Your task to perform on an android device: Check the news Image 0: 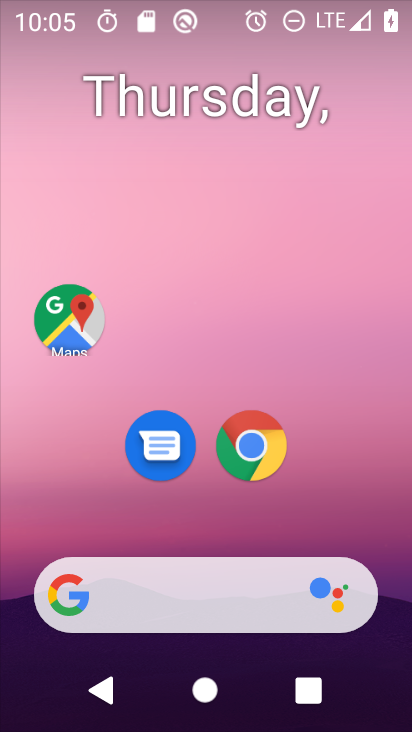
Step 0: drag from (355, 595) to (340, 105)
Your task to perform on an android device: Check the news Image 1: 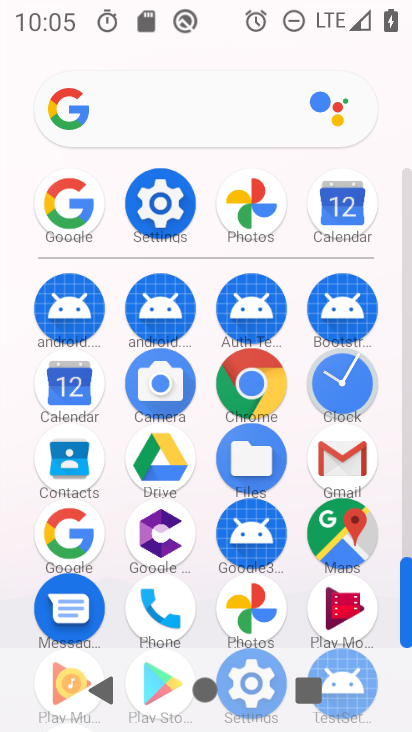
Step 1: click (254, 380)
Your task to perform on an android device: Check the news Image 2: 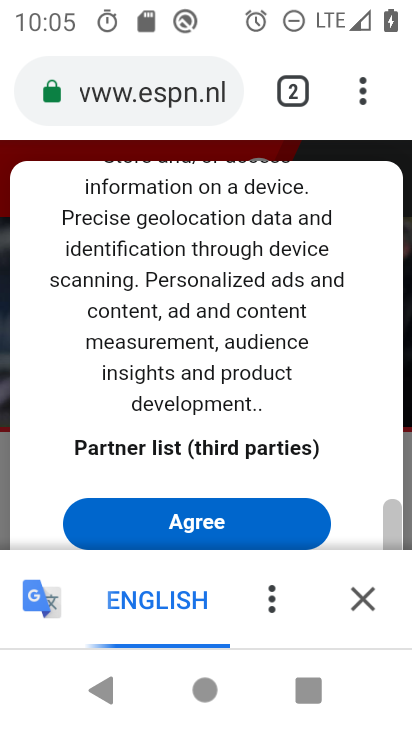
Step 2: press home button
Your task to perform on an android device: Check the news Image 3: 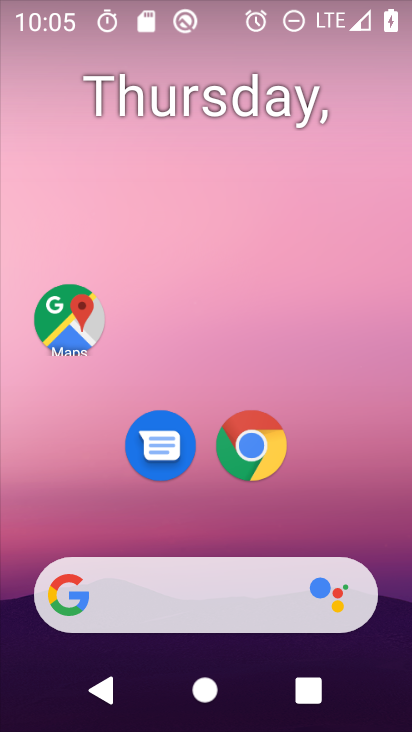
Step 3: drag from (182, 496) to (245, 48)
Your task to perform on an android device: Check the news Image 4: 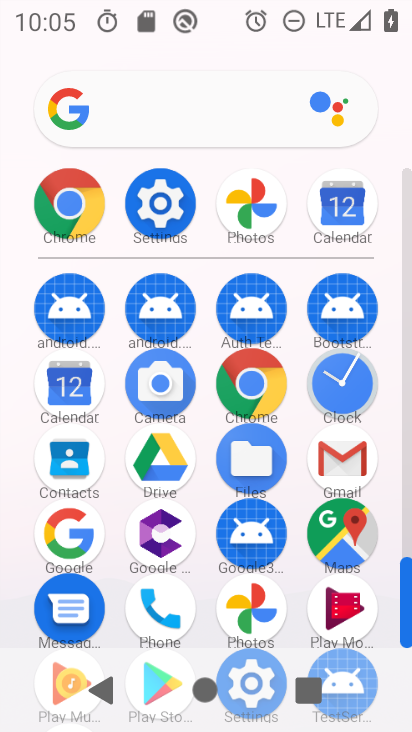
Step 4: click (205, 107)
Your task to perform on an android device: Check the news Image 5: 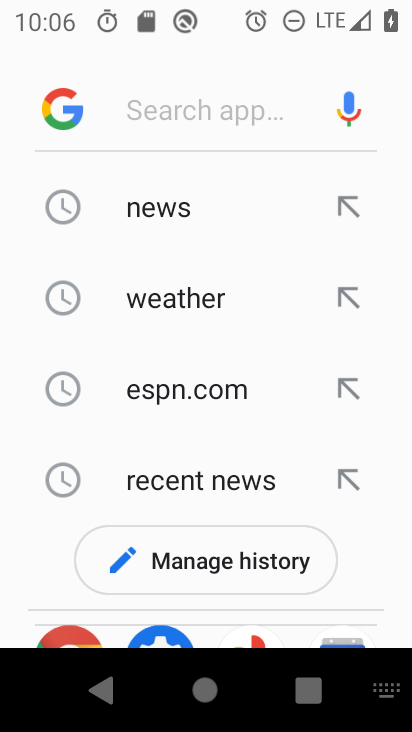
Step 5: click (158, 205)
Your task to perform on an android device: Check the news Image 6: 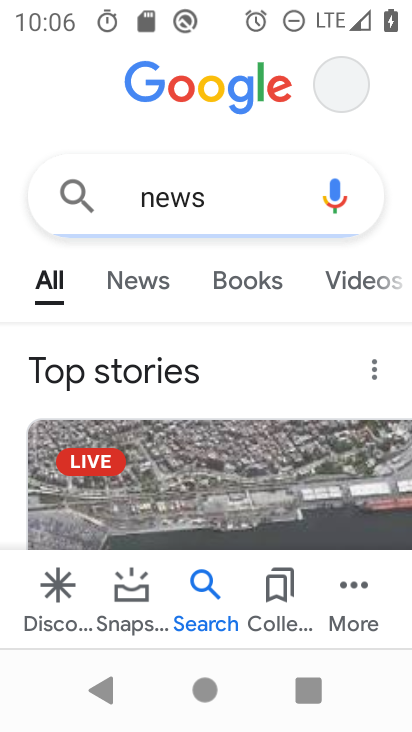
Step 6: task complete